Your task to perform on an android device: turn on translation in the chrome app Image 0: 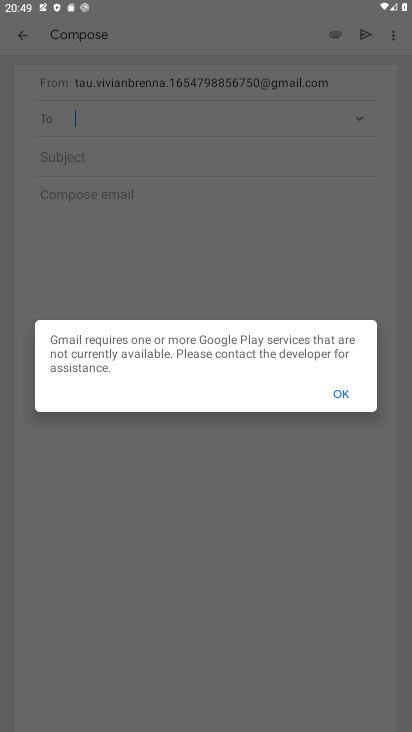
Step 0: press home button
Your task to perform on an android device: turn on translation in the chrome app Image 1: 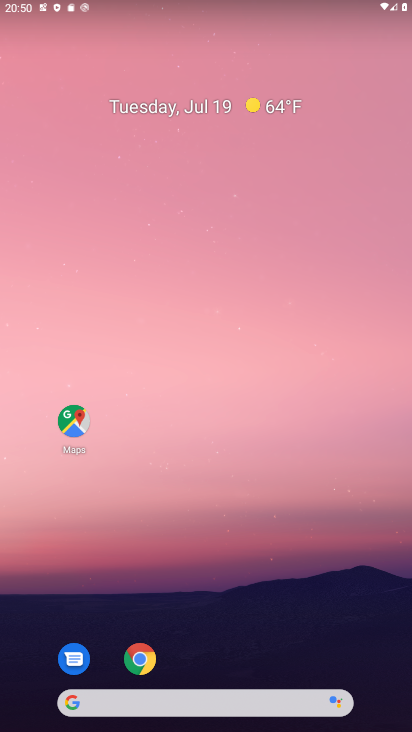
Step 1: click (146, 662)
Your task to perform on an android device: turn on translation in the chrome app Image 2: 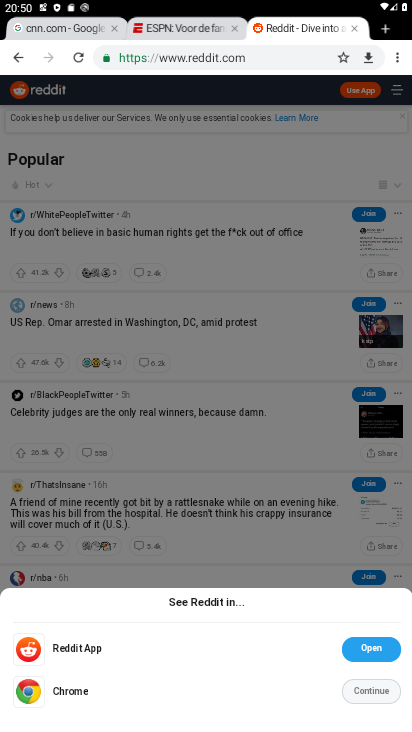
Step 2: click (408, 58)
Your task to perform on an android device: turn on translation in the chrome app Image 3: 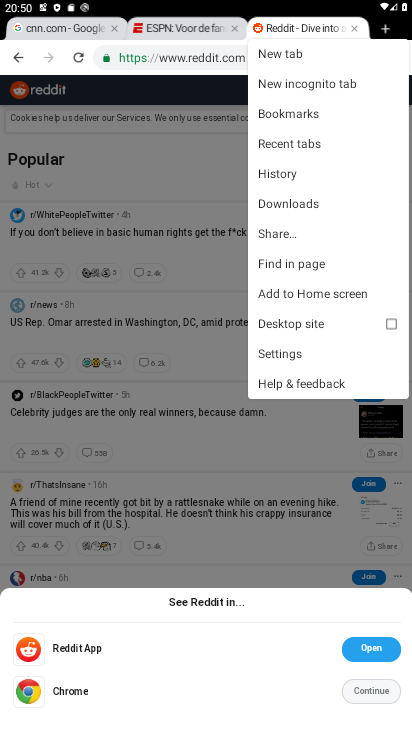
Step 3: click (289, 350)
Your task to perform on an android device: turn on translation in the chrome app Image 4: 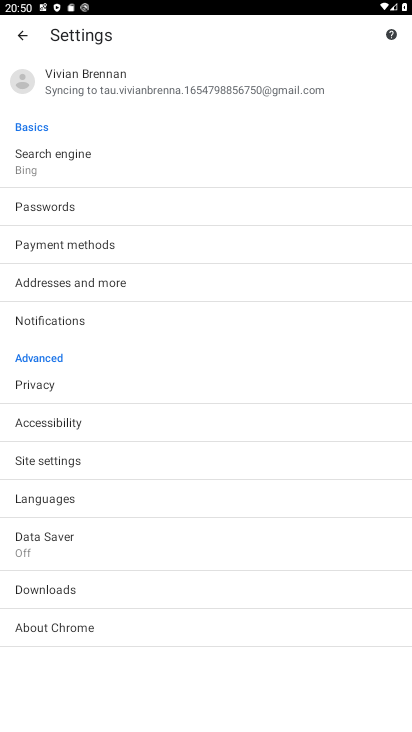
Step 4: click (106, 497)
Your task to perform on an android device: turn on translation in the chrome app Image 5: 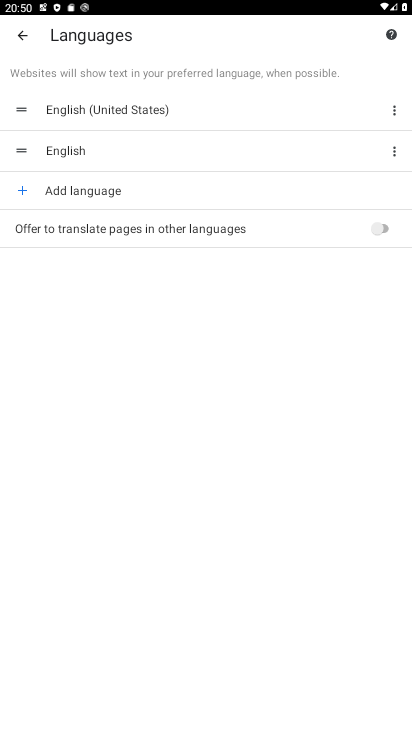
Step 5: click (377, 228)
Your task to perform on an android device: turn on translation in the chrome app Image 6: 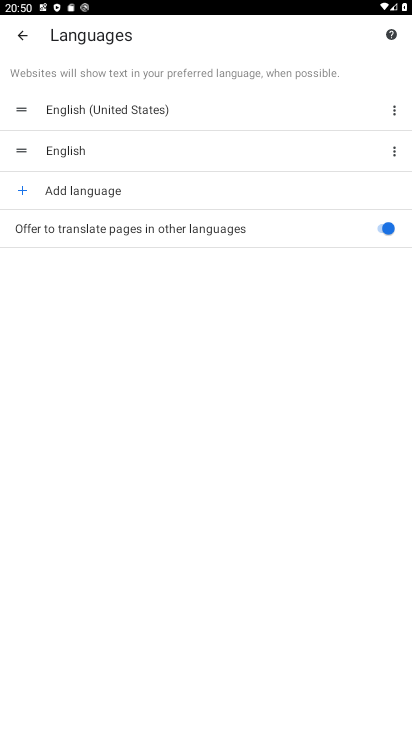
Step 6: task complete